Your task to perform on an android device: clear all cookies in the chrome app Image 0: 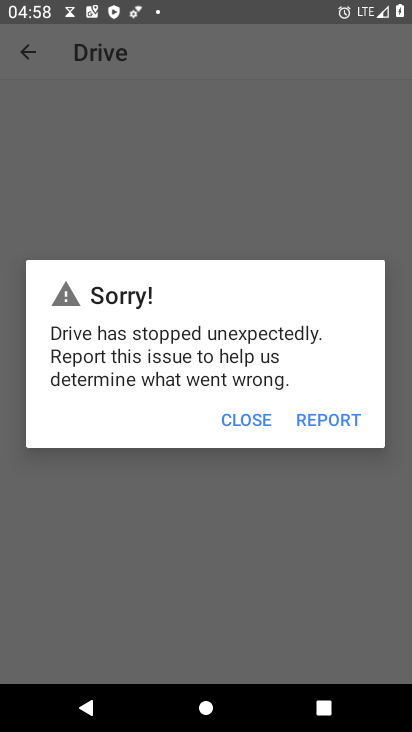
Step 0: press home button
Your task to perform on an android device: clear all cookies in the chrome app Image 1: 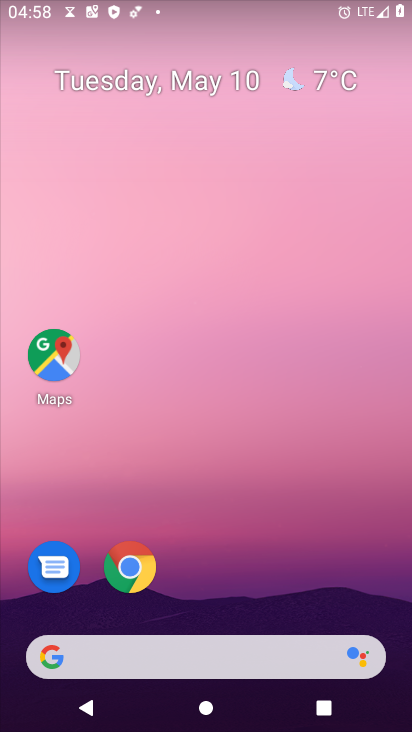
Step 1: click (133, 565)
Your task to perform on an android device: clear all cookies in the chrome app Image 2: 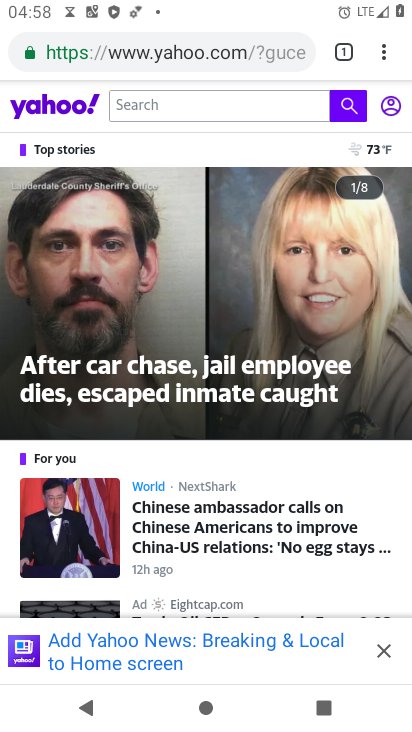
Step 2: click (388, 49)
Your task to perform on an android device: clear all cookies in the chrome app Image 3: 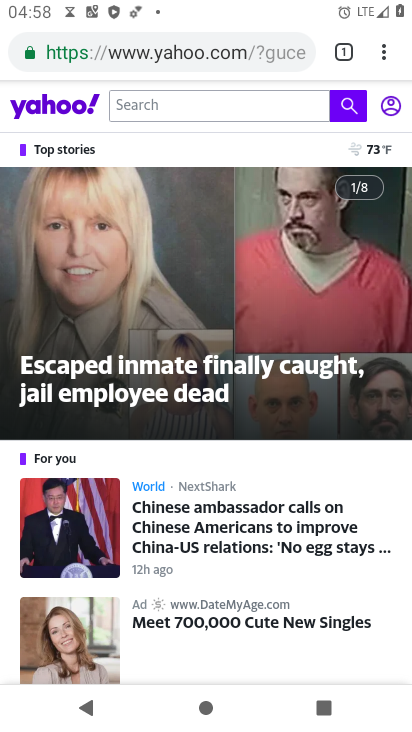
Step 3: click (383, 52)
Your task to perform on an android device: clear all cookies in the chrome app Image 4: 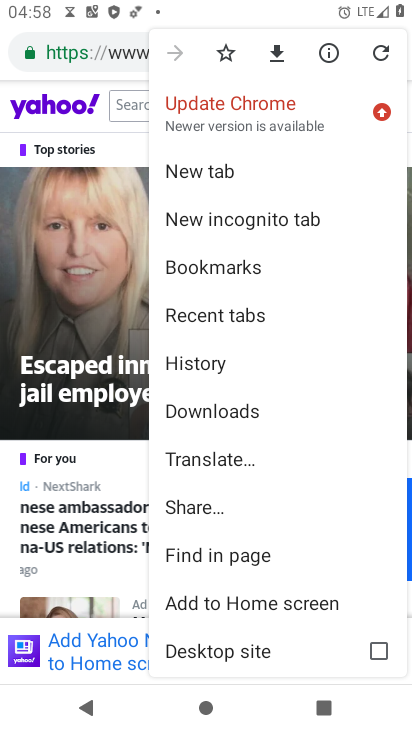
Step 4: drag from (258, 481) to (307, 371)
Your task to perform on an android device: clear all cookies in the chrome app Image 5: 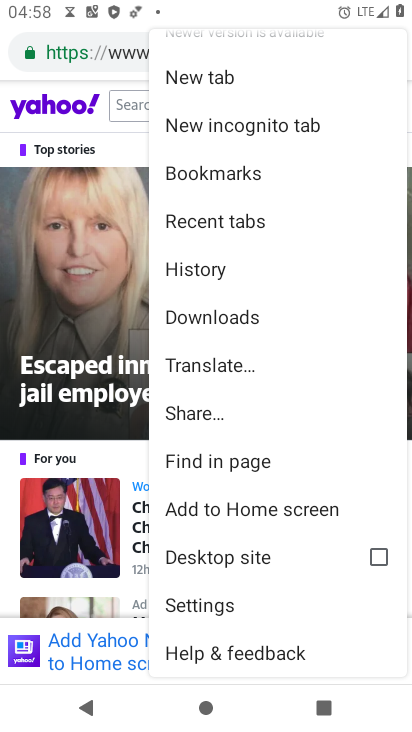
Step 5: click (220, 603)
Your task to perform on an android device: clear all cookies in the chrome app Image 6: 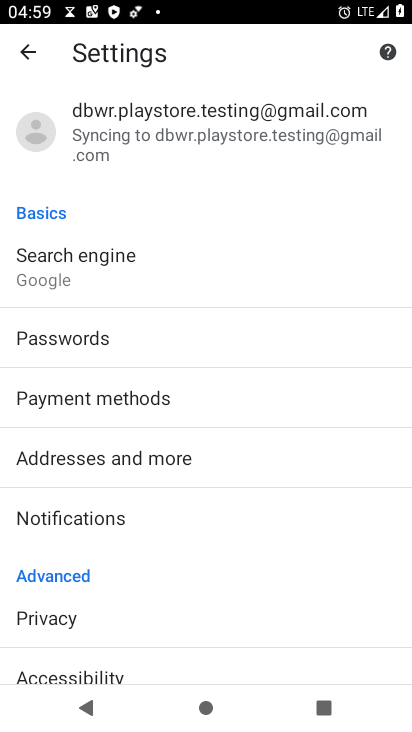
Step 6: click (37, 617)
Your task to perform on an android device: clear all cookies in the chrome app Image 7: 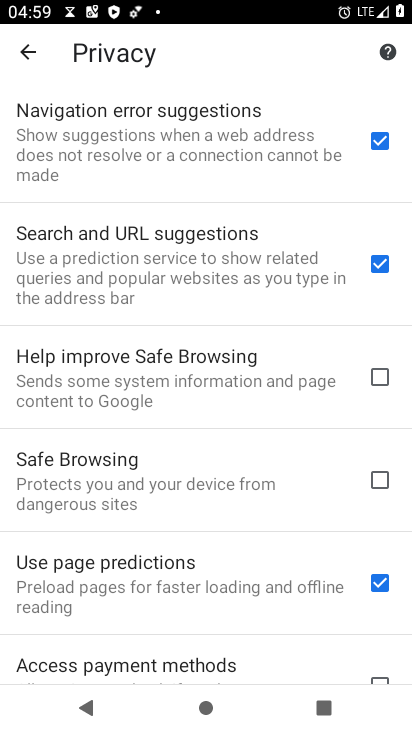
Step 7: drag from (203, 521) to (208, 370)
Your task to perform on an android device: clear all cookies in the chrome app Image 8: 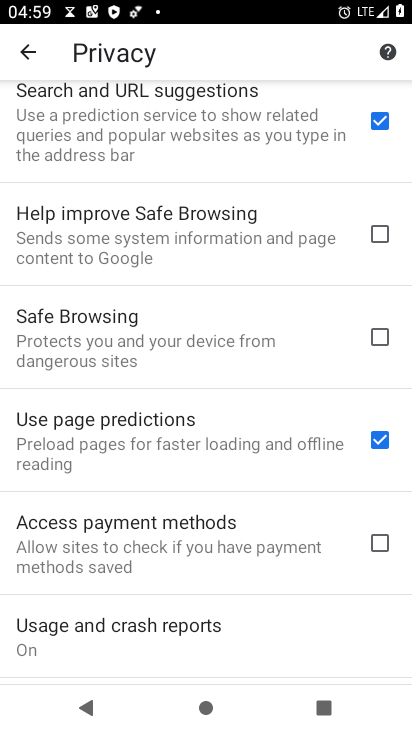
Step 8: drag from (196, 602) to (228, 447)
Your task to perform on an android device: clear all cookies in the chrome app Image 9: 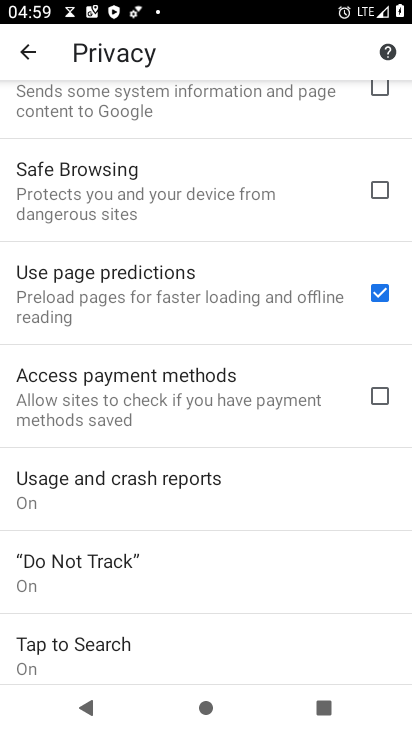
Step 9: drag from (180, 591) to (227, 422)
Your task to perform on an android device: clear all cookies in the chrome app Image 10: 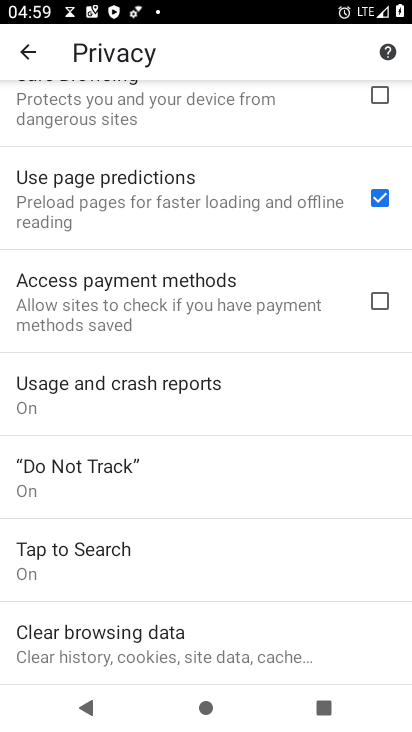
Step 10: click (191, 640)
Your task to perform on an android device: clear all cookies in the chrome app Image 11: 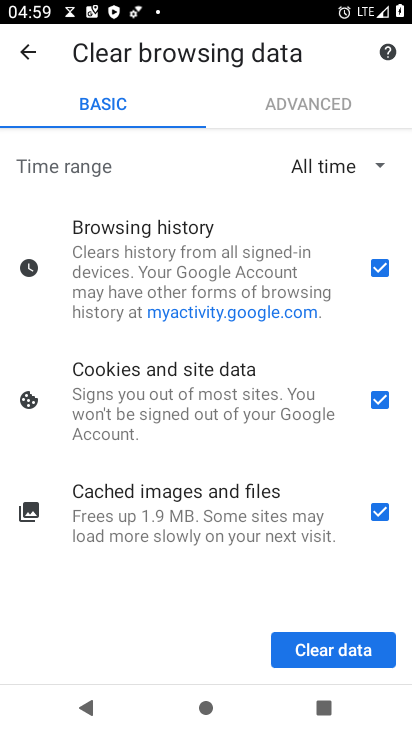
Step 11: click (323, 647)
Your task to perform on an android device: clear all cookies in the chrome app Image 12: 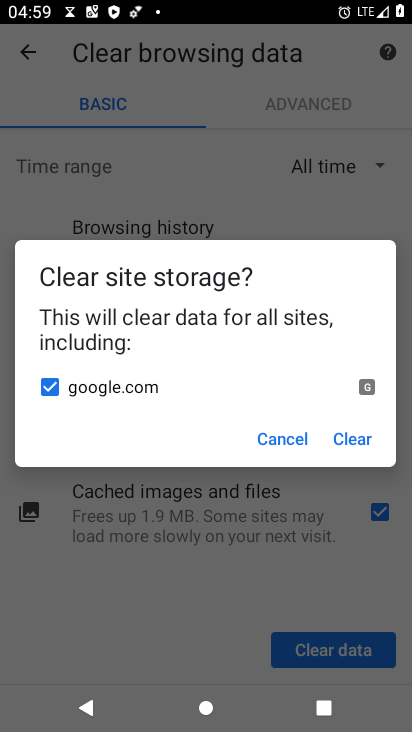
Step 12: click (360, 437)
Your task to perform on an android device: clear all cookies in the chrome app Image 13: 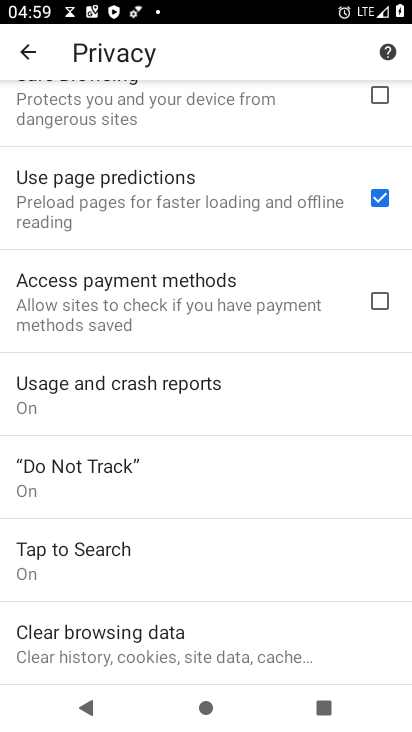
Step 13: task complete